Your task to perform on an android device: turn on airplane mode Image 0: 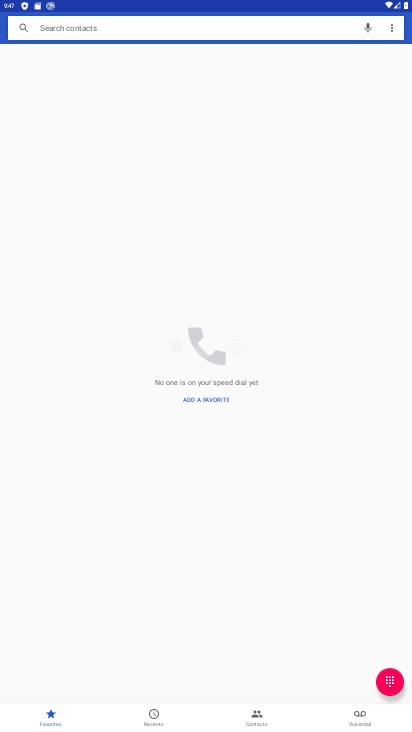
Step 0: drag from (177, 3) to (221, 614)
Your task to perform on an android device: turn on airplane mode Image 1: 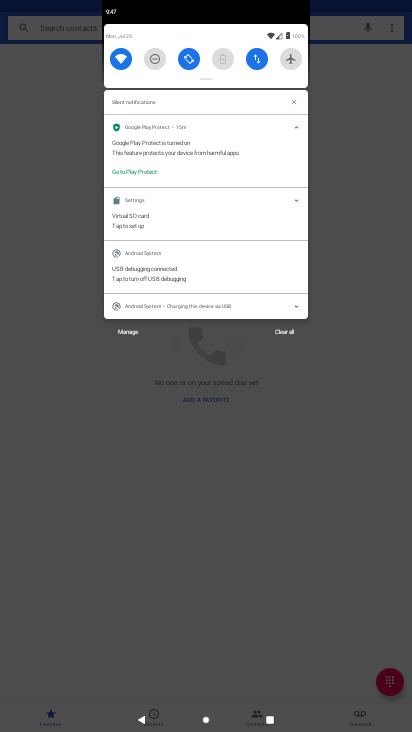
Step 1: click (286, 54)
Your task to perform on an android device: turn on airplane mode Image 2: 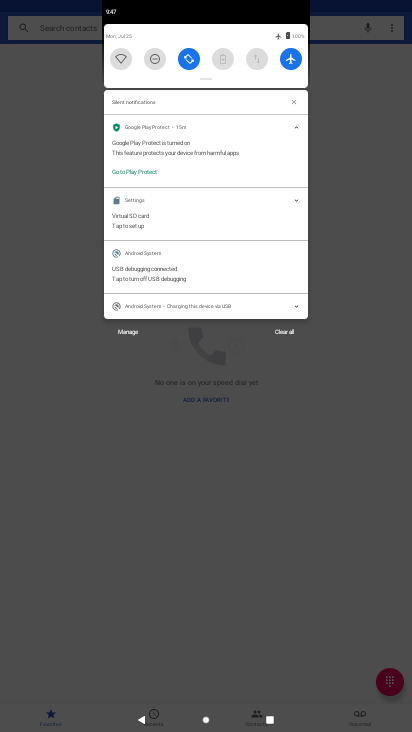
Step 2: task complete